Your task to perform on an android device: Search for seafood restaurants on Google Maps Image 0: 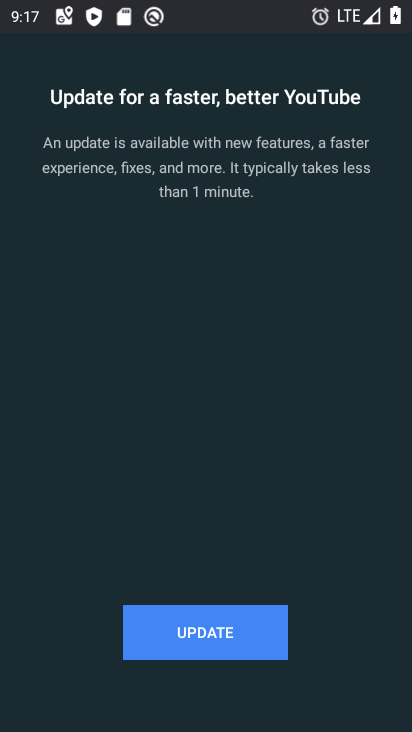
Step 0: press home button
Your task to perform on an android device: Search for seafood restaurants on Google Maps Image 1: 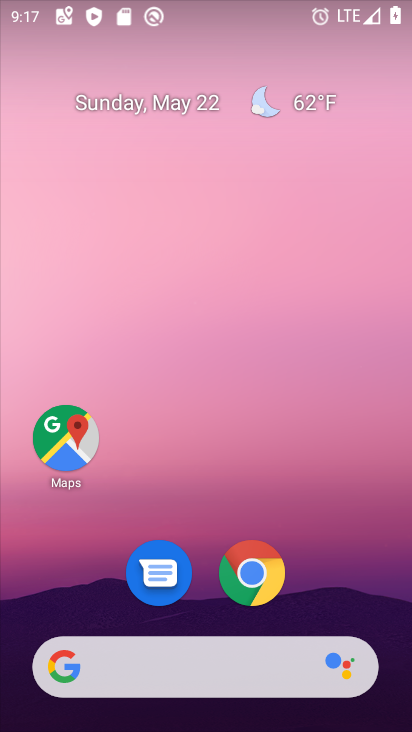
Step 1: drag from (272, 642) to (365, 5)
Your task to perform on an android device: Search for seafood restaurants on Google Maps Image 2: 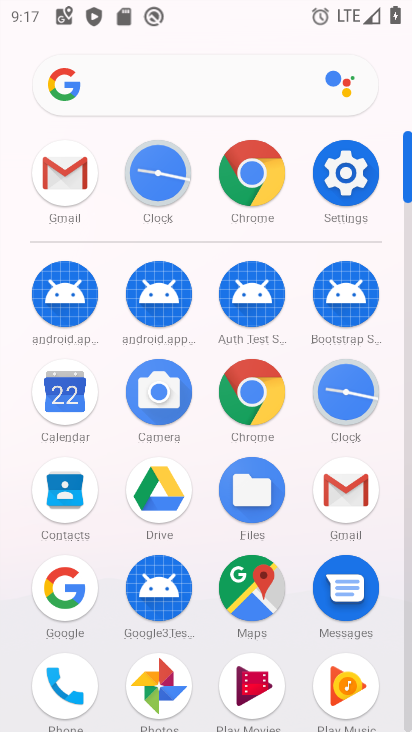
Step 2: click (253, 591)
Your task to perform on an android device: Search for seafood restaurants on Google Maps Image 3: 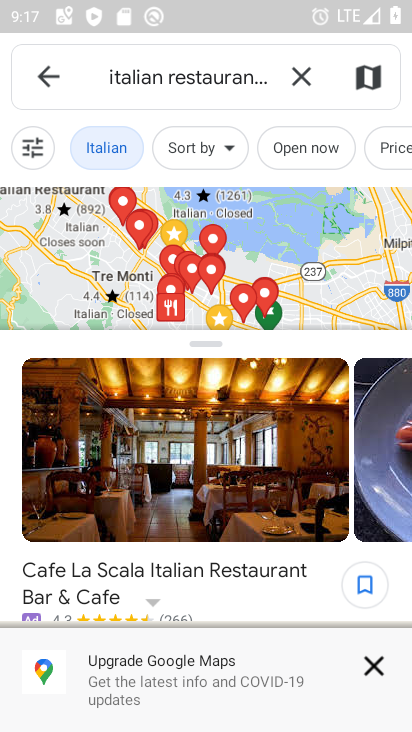
Step 3: click (297, 76)
Your task to perform on an android device: Search for seafood restaurants on Google Maps Image 4: 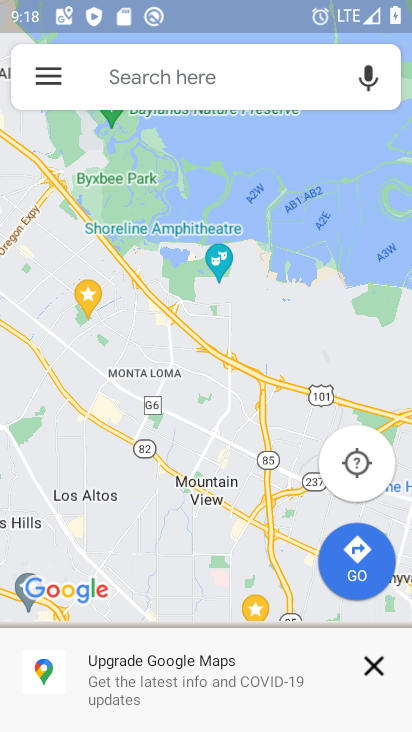
Step 4: click (239, 88)
Your task to perform on an android device: Search for seafood restaurants on Google Maps Image 5: 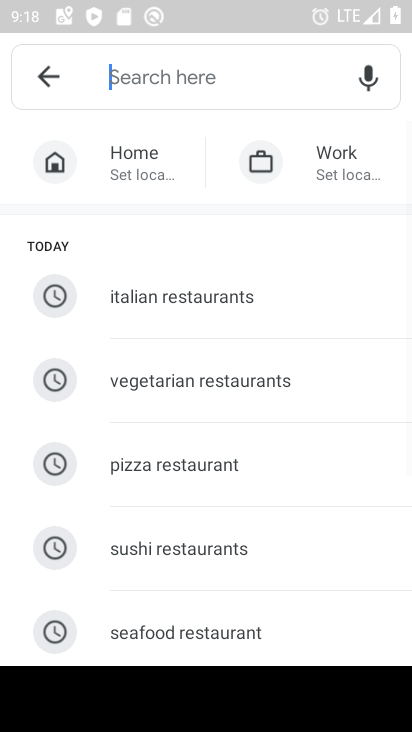
Step 5: click (222, 628)
Your task to perform on an android device: Search for seafood restaurants on Google Maps Image 6: 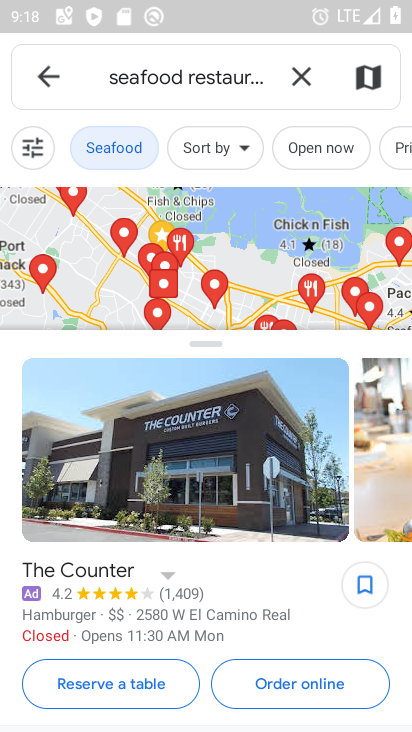
Step 6: task complete